Your task to perform on an android device: Turn off the flashlight Image 0: 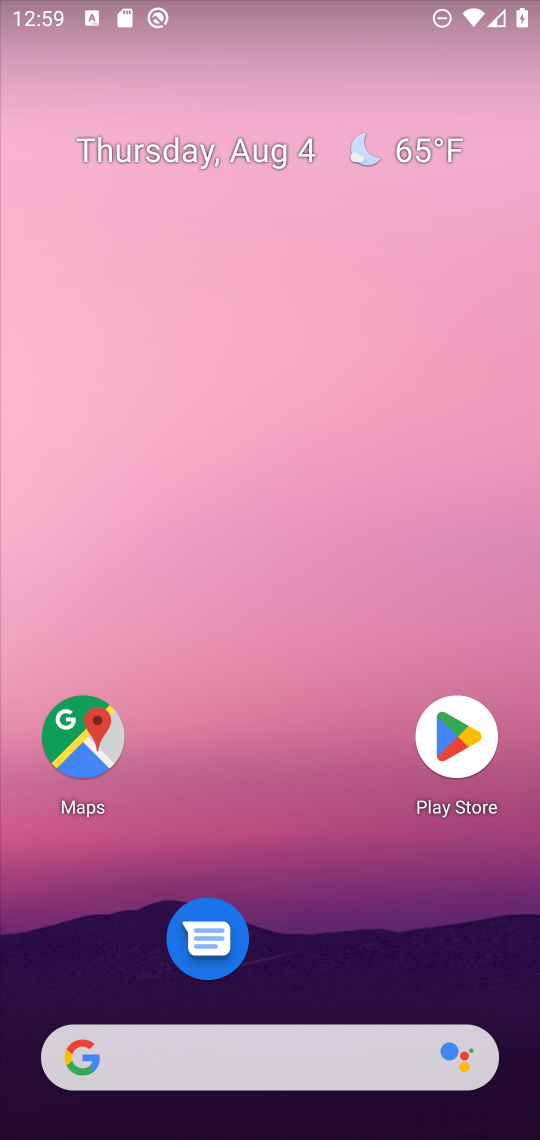
Step 0: drag from (191, 33) to (275, 1038)
Your task to perform on an android device: Turn off the flashlight Image 1: 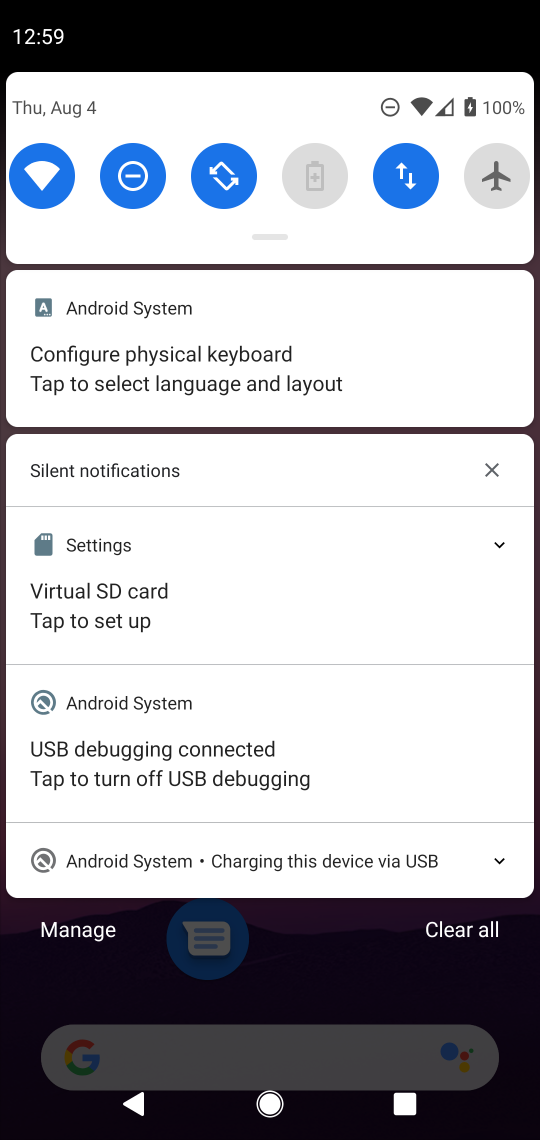
Step 1: task complete